Your task to perform on an android device: Go to internet settings Image 0: 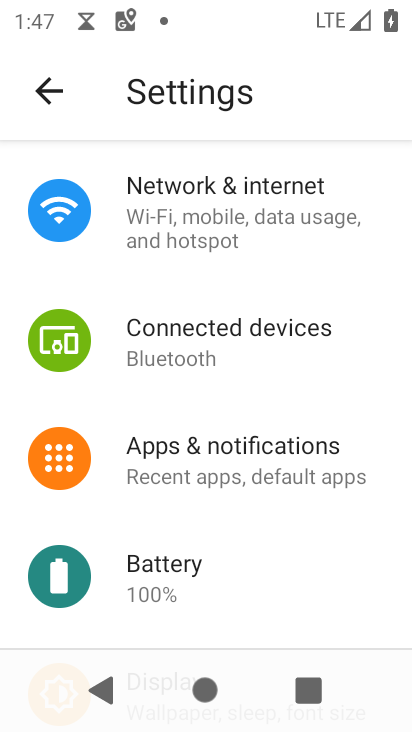
Step 0: click (263, 208)
Your task to perform on an android device: Go to internet settings Image 1: 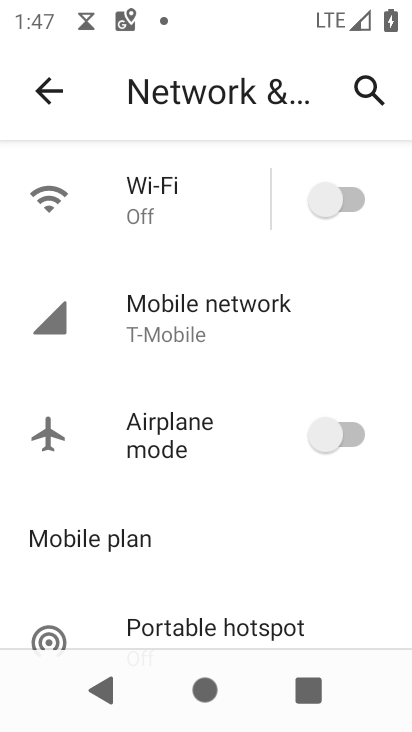
Step 1: task complete